Your task to perform on an android device: What's the news in Bolivia? Image 0: 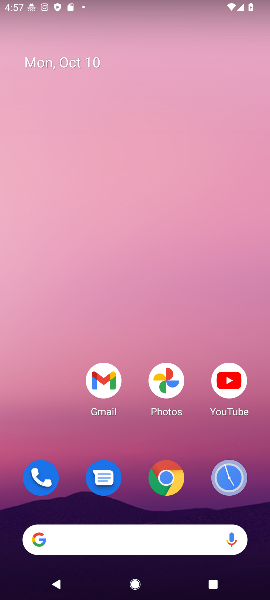
Step 0: click (170, 466)
Your task to perform on an android device: What's the news in Bolivia? Image 1: 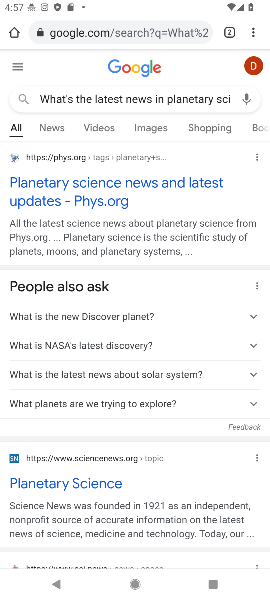
Step 1: click (102, 27)
Your task to perform on an android device: What's the news in Bolivia? Image 2: 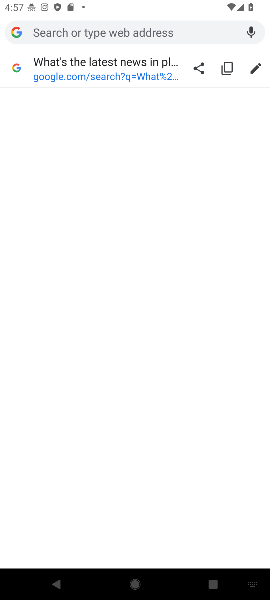
Step 2: type "What's the news in Bolivia?"
Your task to perform on an android device: What's the news in Bolivia? Image 3: 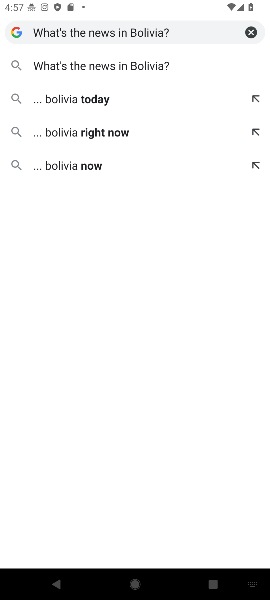
Step 3: click (104, 62)
Your task to perform on an android device: What's the news in Bolivia? Image 4: 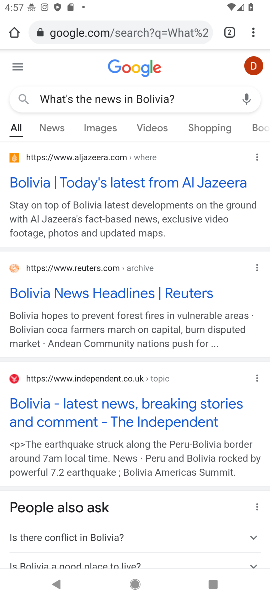
Step 4: click (53, 126)
Your task to perform on an android device: What's the news in Bolivia? Image 5: 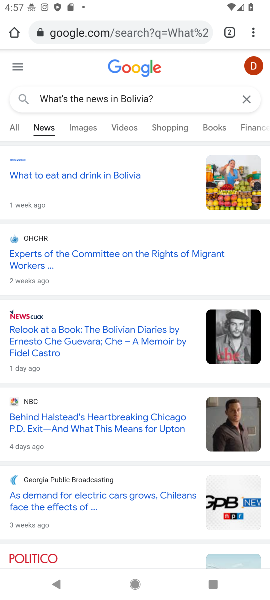
Step 5: task complete